Your task to perform on an android device: toggle translation in the chrome app Image 0: 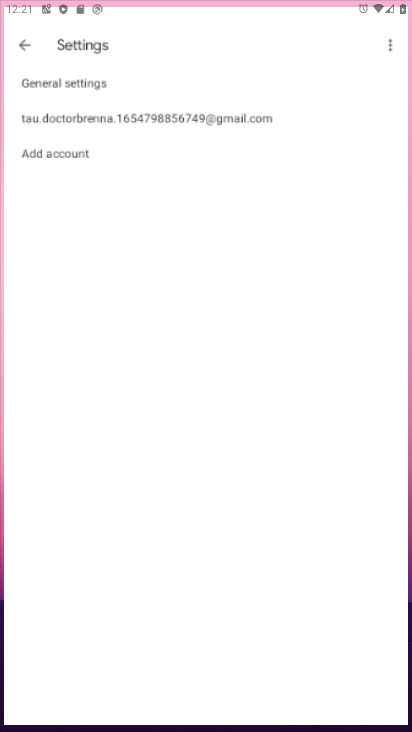
Step 0: drag from (402, 642) to (340, 0)
Your task to perform on an android device: toggle translation in the chrome app Image 1: 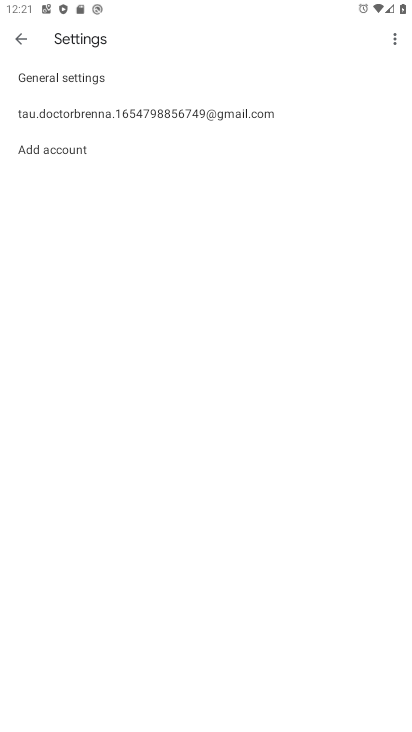
Step 1: press home button
Your task to perform on an android device: toggle translation in the chrome app Image 2: 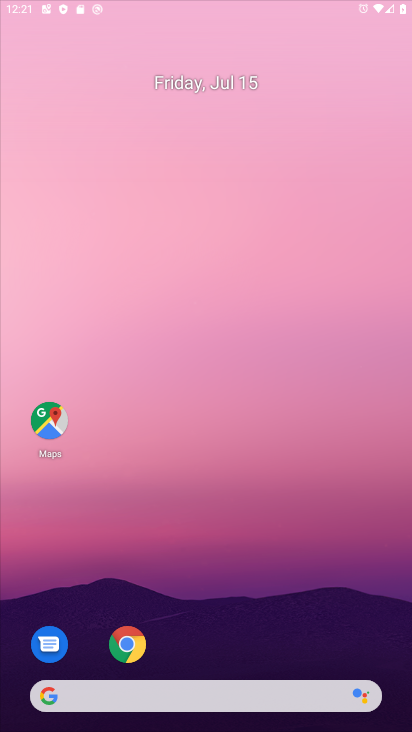
Step 2: drag from (383, 681) to (262, 44)
Your task to perform on an android device: toggle translation in the chrome app Image 3: 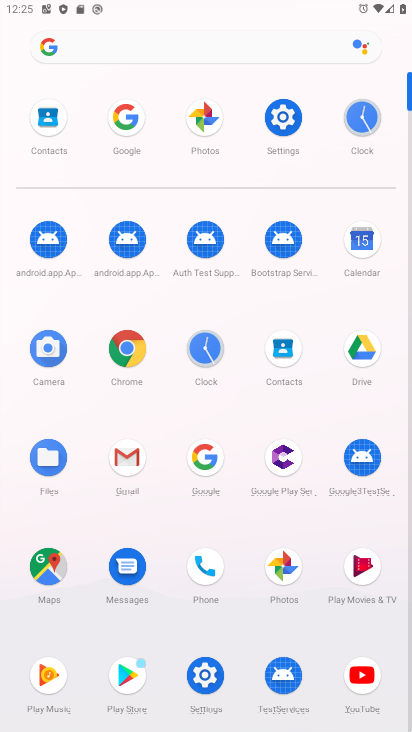
Step 3: click (136, 359)
Your task to perform on an android device: toggle translation in the chrome app Image 4: 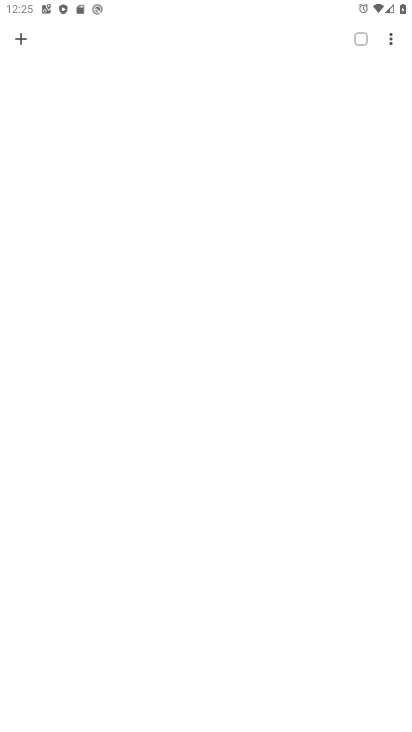
Step 4: click (394, 35)
Your task to perform on an android device: toggle translation in the chrome app Image 5: 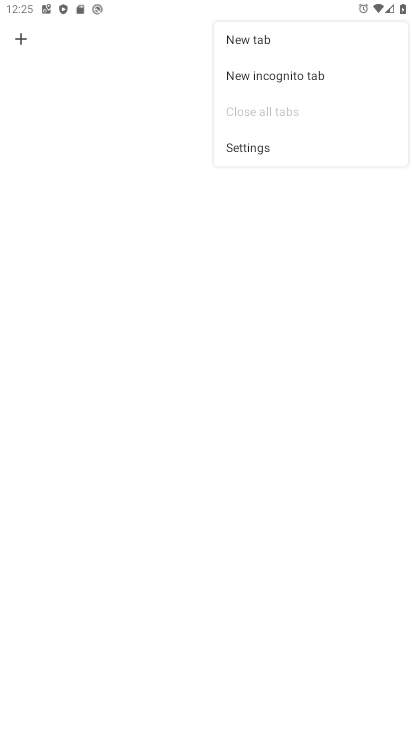
Step 5: click (265, 141)
Your task to perform on an android device: toggle translation in the chrome app Image 6: 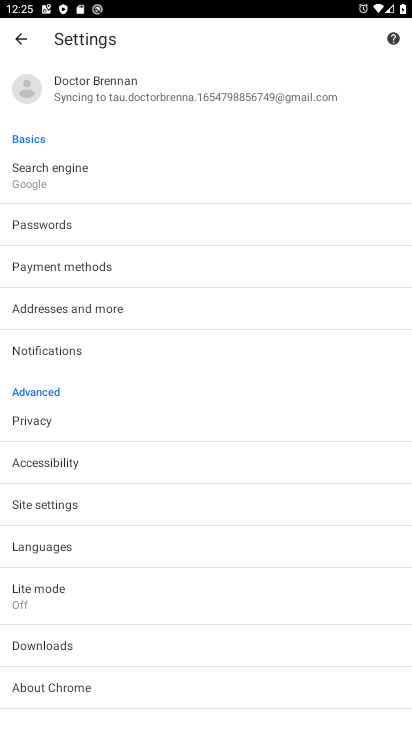
Step 6: click (83, 554)
Your task to perform on an android device: toggle translation in the chrome app Image 7: 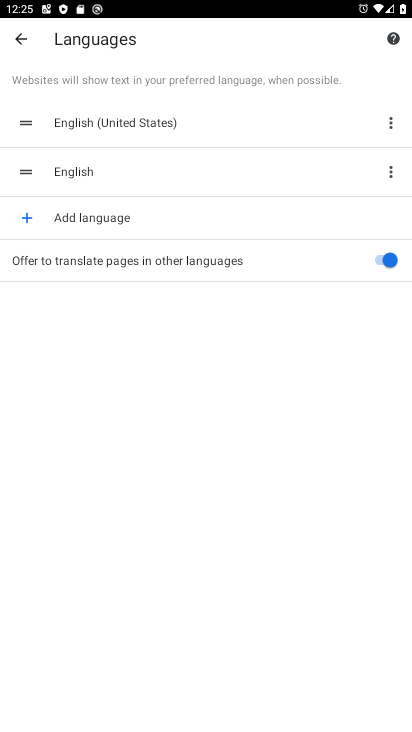
Step 7: click (356, 259)
Your task to perform on an android device: toggle translation in the chrome app Image 8: 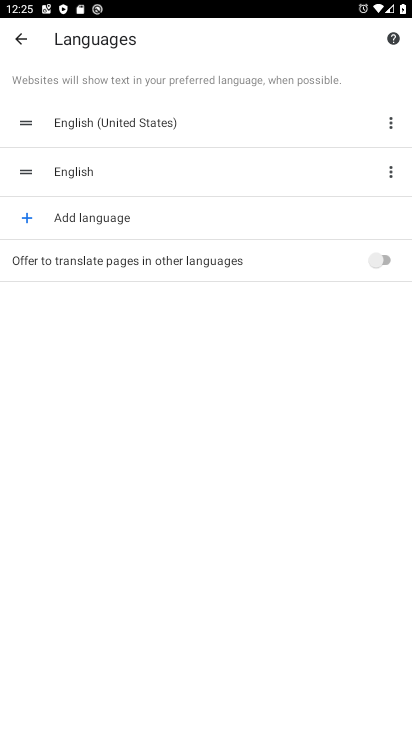
Step 8: task complete